Your task to perform on an android device: delete location history Image 0: 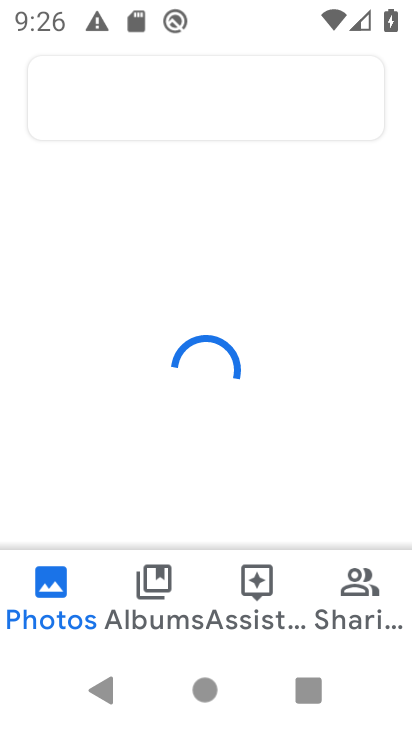
Step 0: press home button
Your task to perform on an android device: delete location history Image 1: 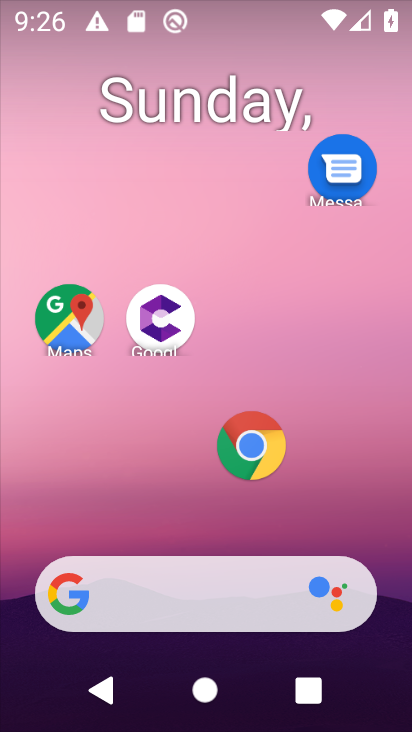
Step 1: drag from (167, 513) to (211, 127)
Your task to perform on an android device: delete location history Image 2: 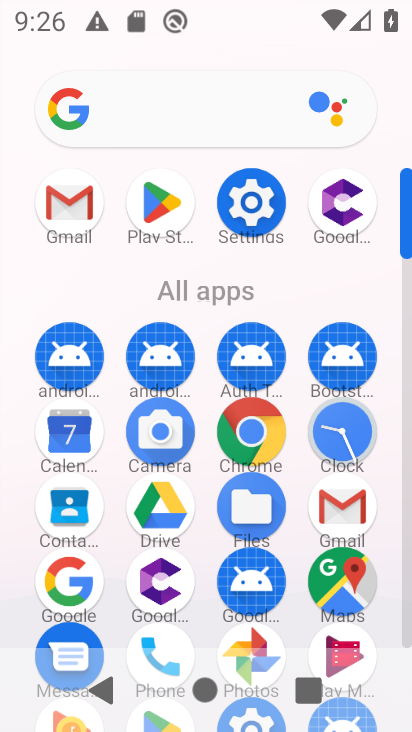
Step 2: click (244, 199)
Your task to perform on an android device: delete location history Image 3: 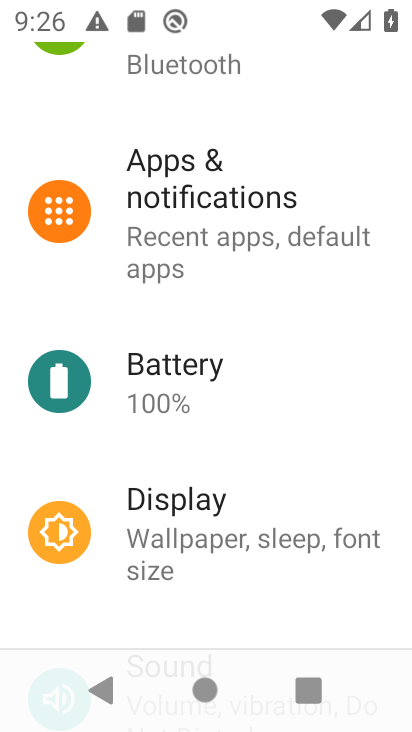
Step 3: drag from (188, 455) to (187, 171)
Your task to perform on an android device: delete location history Image 4: 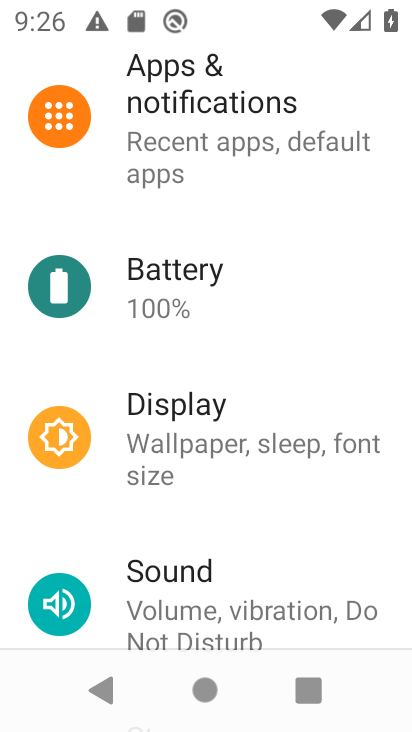
Step 4: drag from (228, 459) to (224, 283)
Your task to perform on an android device: delete location history Image 5: 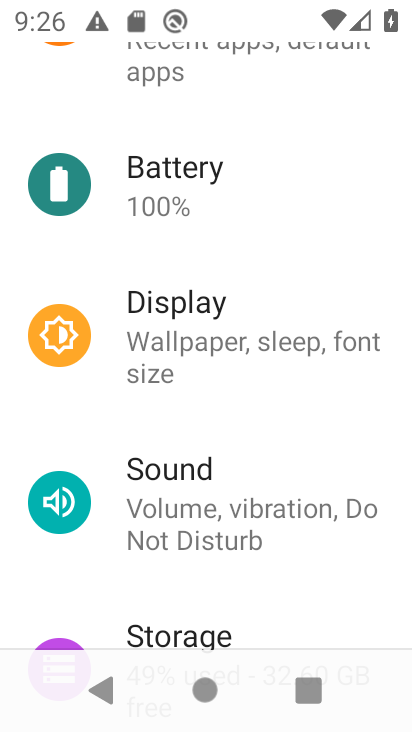
Step 5: drag from (188, 559) to (156, 354)
Your task to perform on an android device: delete location history Image 6: 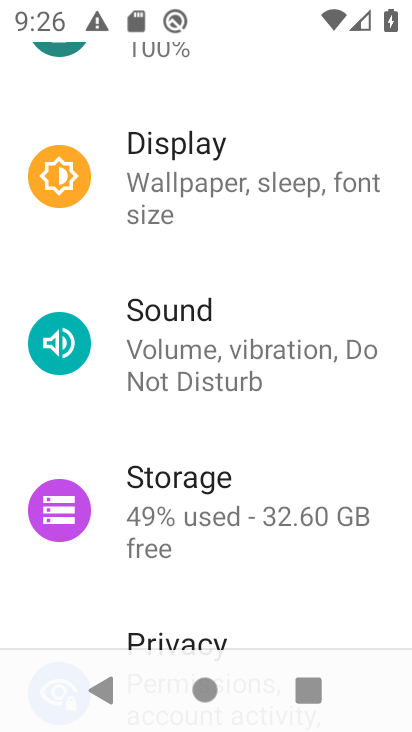
Step 6: drag from (228, 494) to (220, 203)
Your task to perform on an android device: delete location history Image 7: 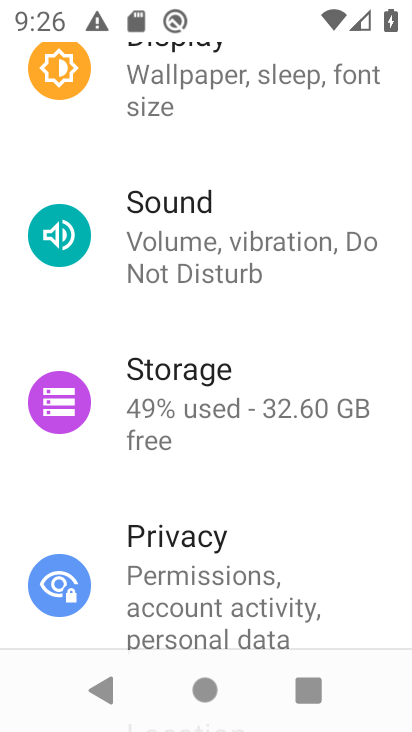
Step 7: drag from (288, 543) to (245, 215)
Your task to perform on an android device: delete location history Image 8: 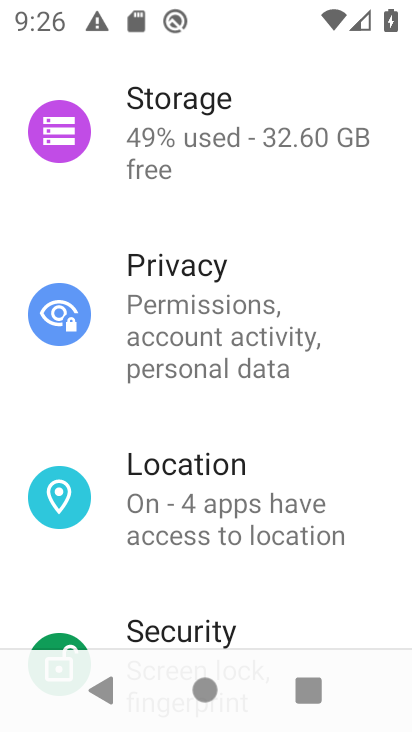
Step 8: click (245, 494)
Your task to perform on an android device: delete location history Image 9: 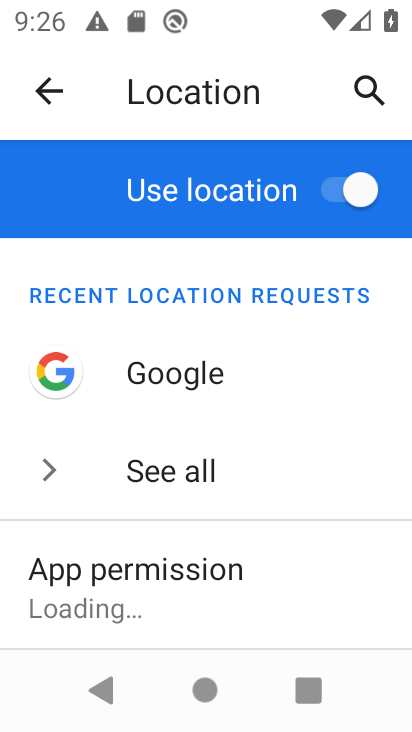
Step 9: task complete